Your task to perform on an android device: check google app version Image 0: 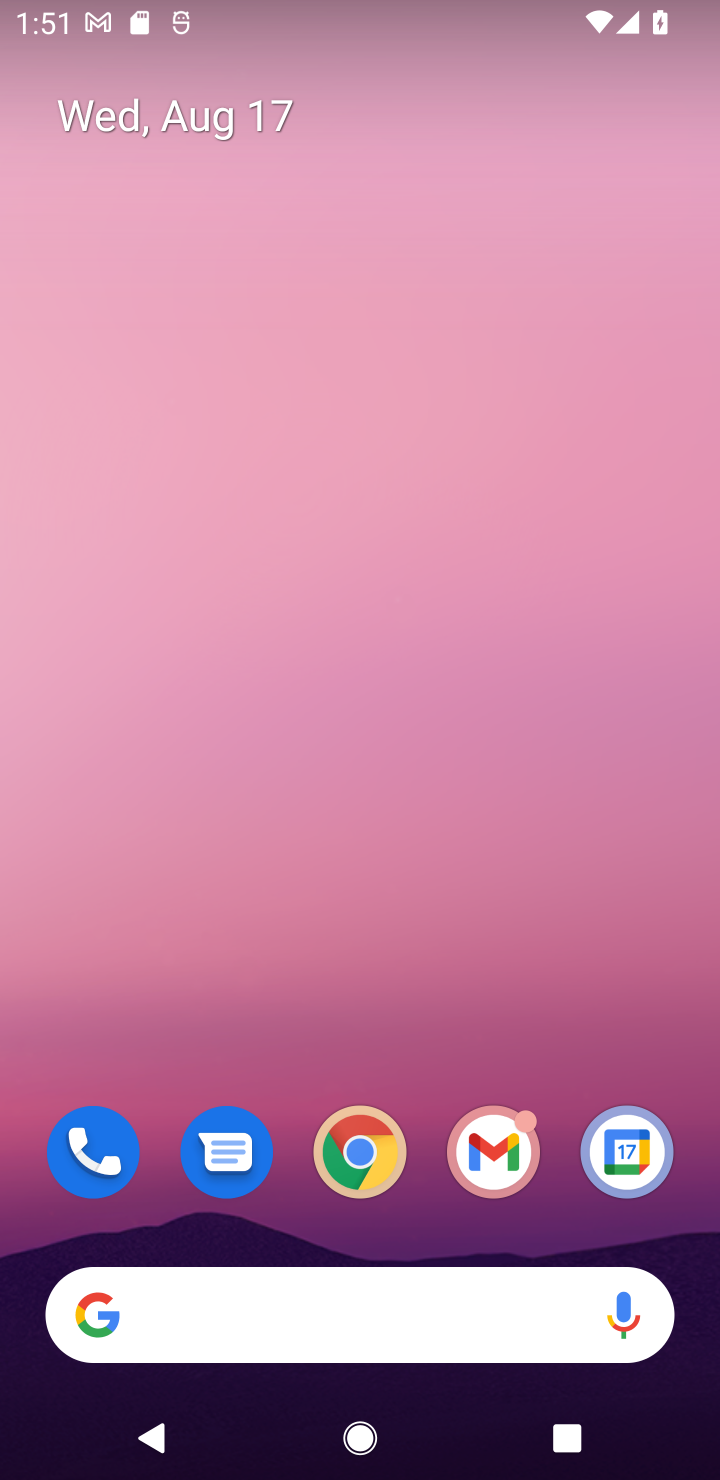
Step 0: drag from (603, 1219) to (288, 55)
Your task to perform on an android device: check google app version Image 1: 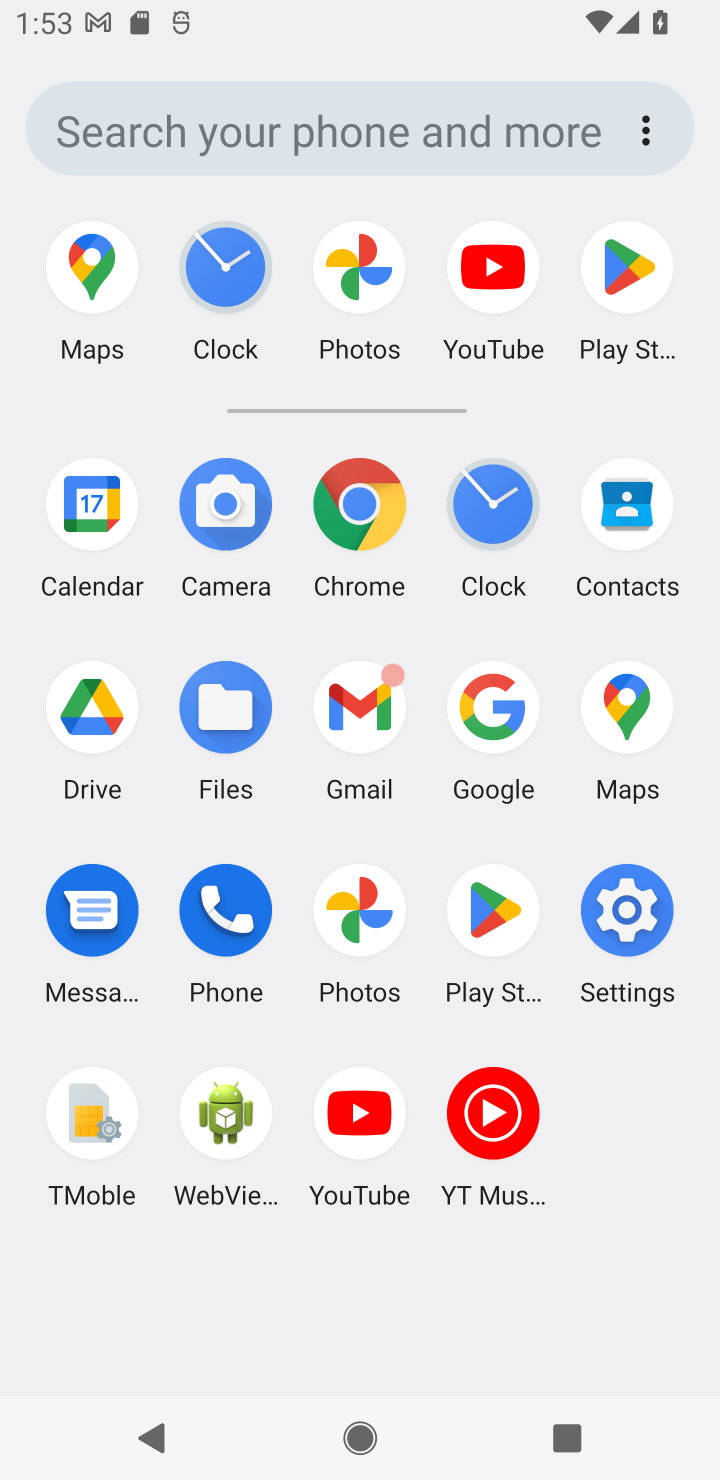
Step 1: click (496, 703)
Your task to perform on an android device: check google app version Image 2: 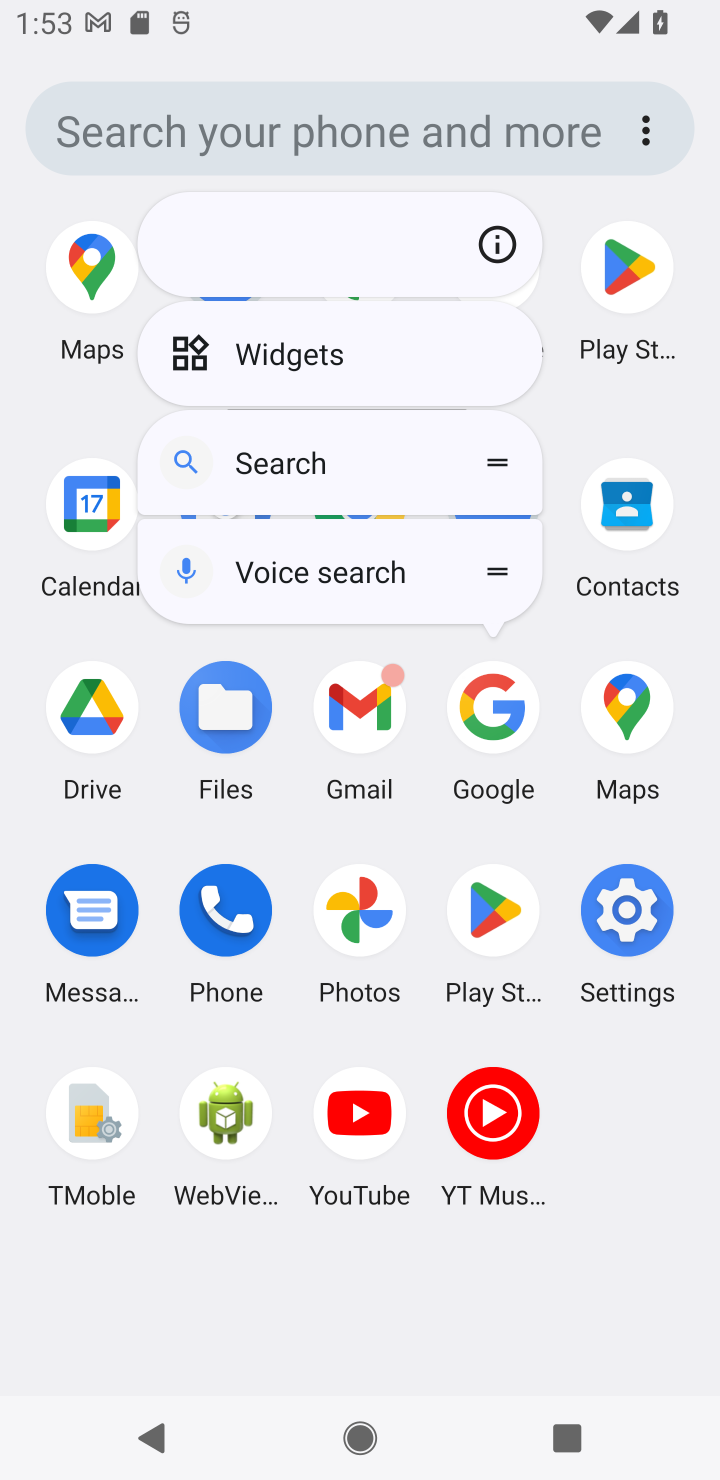
Step 2: click (496, 258)
Your task to perform on an android device: check google app version Image 3: 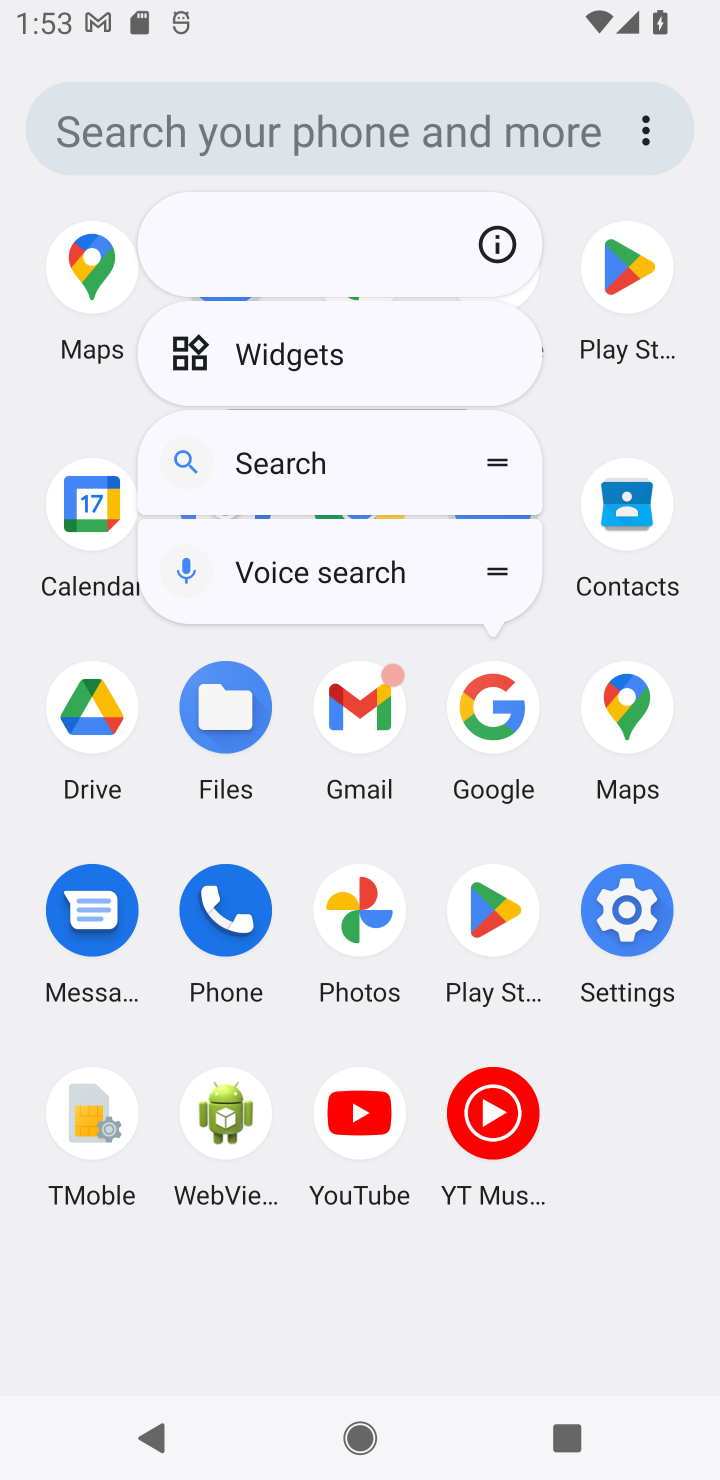
Step 3: click (496, 258)
Your task to perform on an android device: check google app version Image 4: 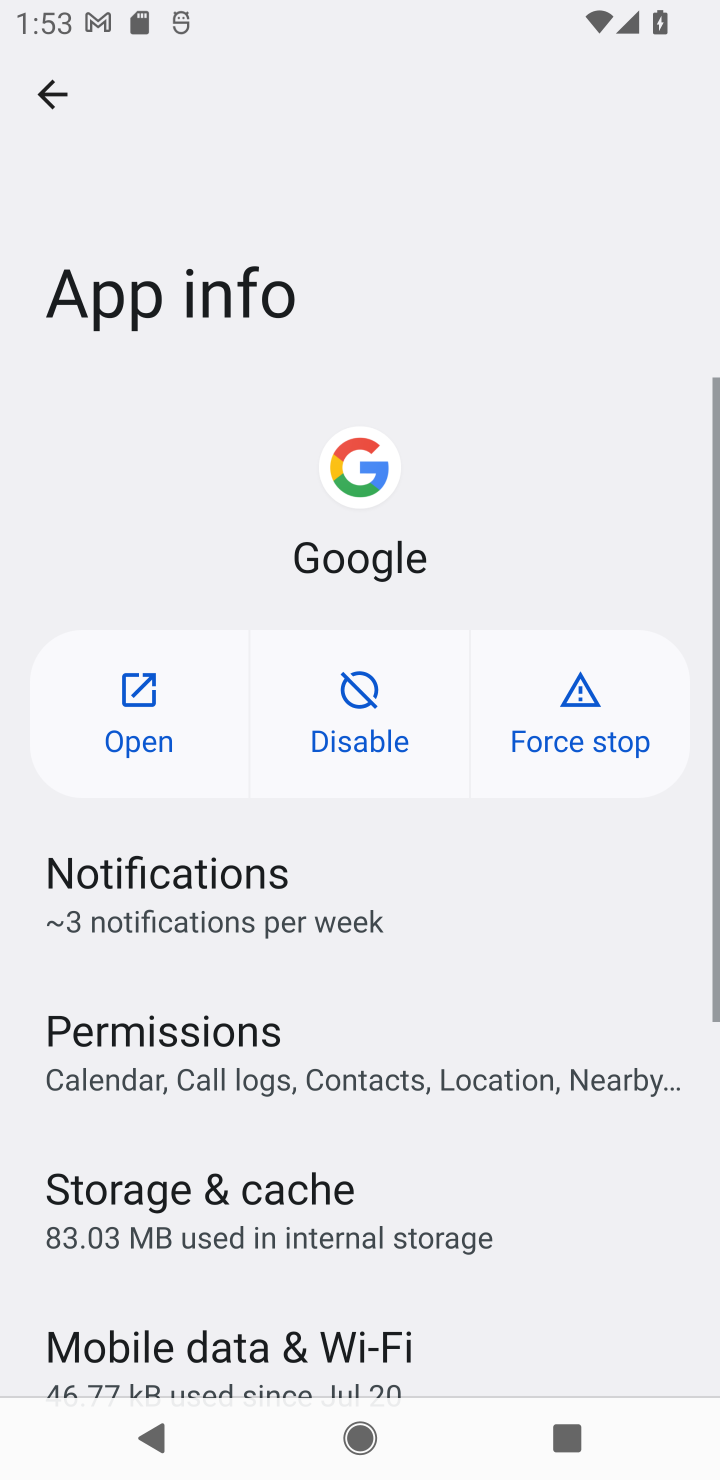
Step 4: task complete